Your task to perform on an android device: Search for Mexican restaurants on Maps Image 0: 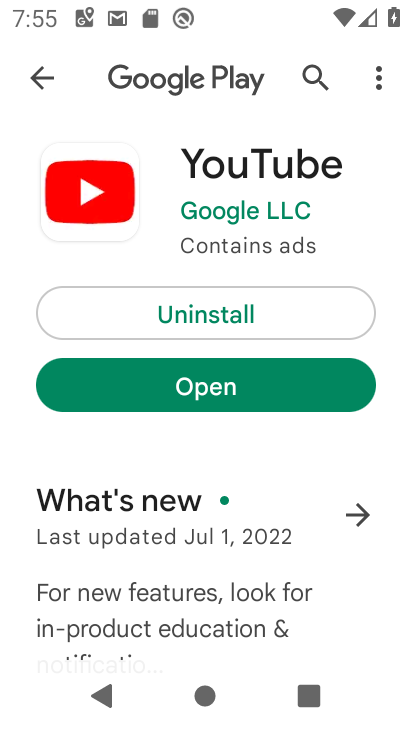
Step 0: press home button
Your task to perform on an android device: Search for Mexican restaurants on Maps Image 1: 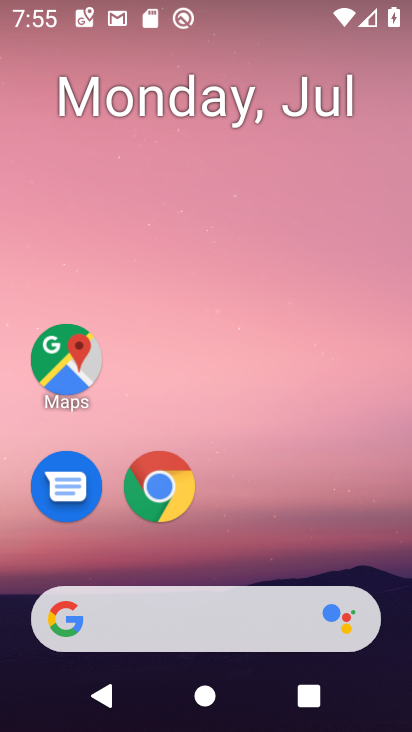
Step 1: drag from (332, 548) to (386, 180)
Your task to perform on an android device: Search for Mexican restaurants on Maps Image 2: 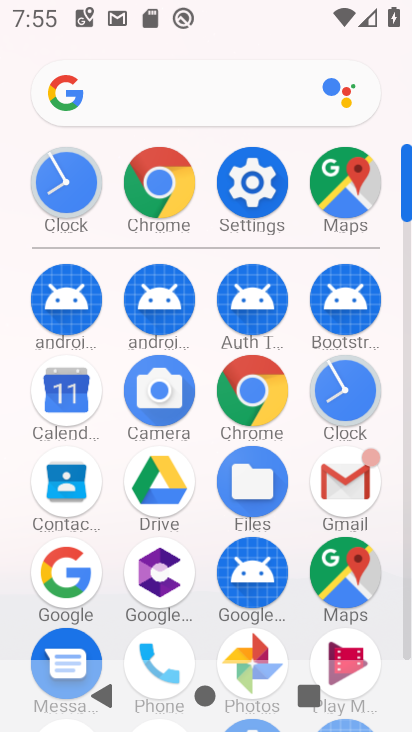
Step 2: click (358, 566)
Your task to perform on an android device: Search for Mexican restaurants on Maps Image 3: 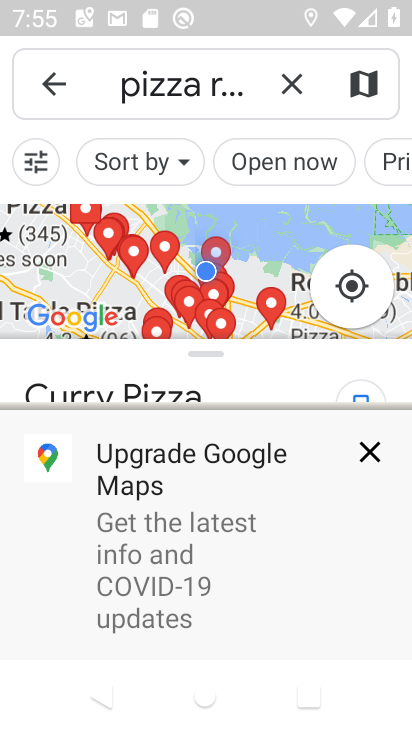
Step 3: press back button
Your task to perform on an android device: Search for Mexican restaurants on Maps Image 4: 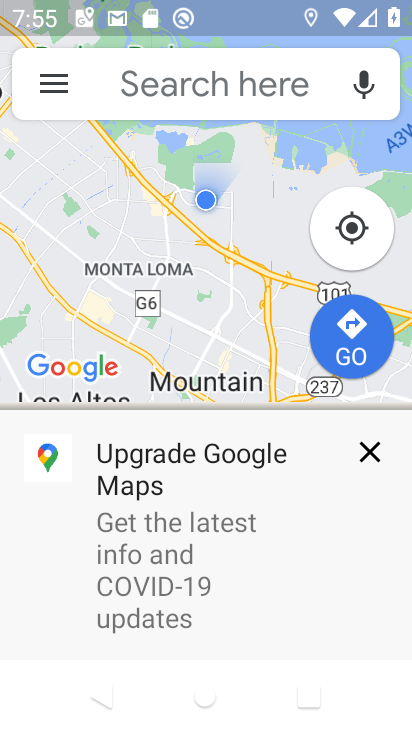
Step 4: click (276, 92)
Your task to perform on an android device: Search for Mexican restaurants on Maps Image 5: 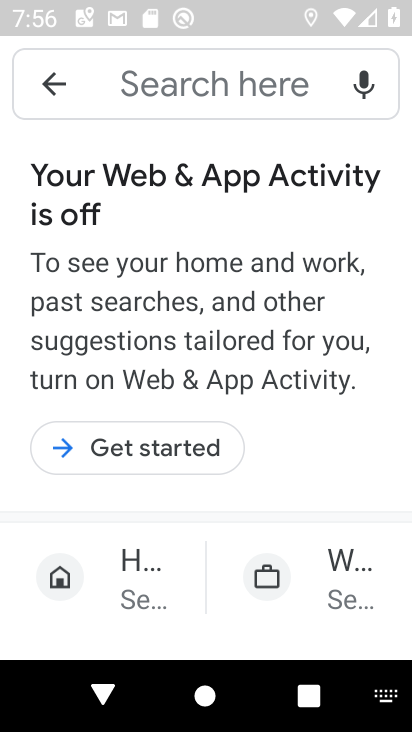
Step 5: type "mexican restaurants"
Your task to perform on an android device: Search for Mexican restaurants on Maps Image 6: 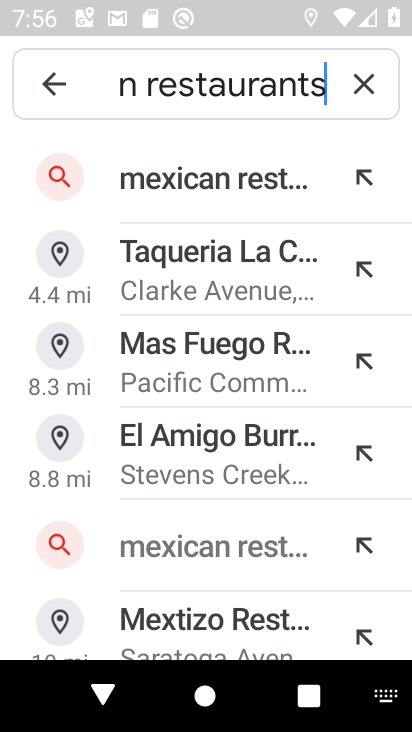
Step 6: click (311, 200)
Your task to perform on an android device: Search for Mexican restaurants on Maps Image 7: 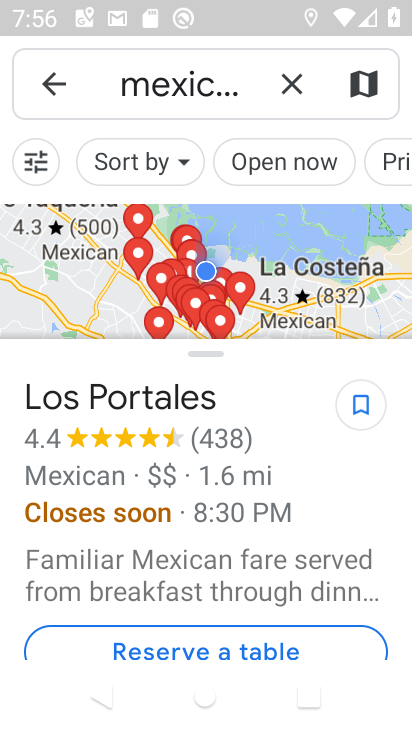
Step 7: task complete